Your task to perform on an android device: Turn on the flashlight Image 0: 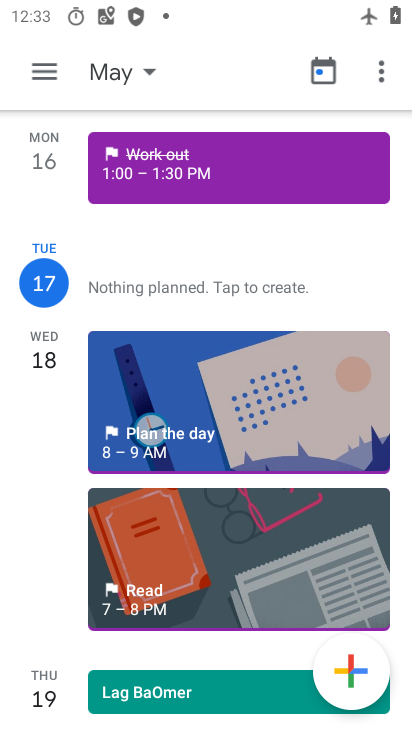
Step 0: drag from (280, 22) to (409, 668)
Your task to perform on an android device: Turn on the flashlight Image 1: 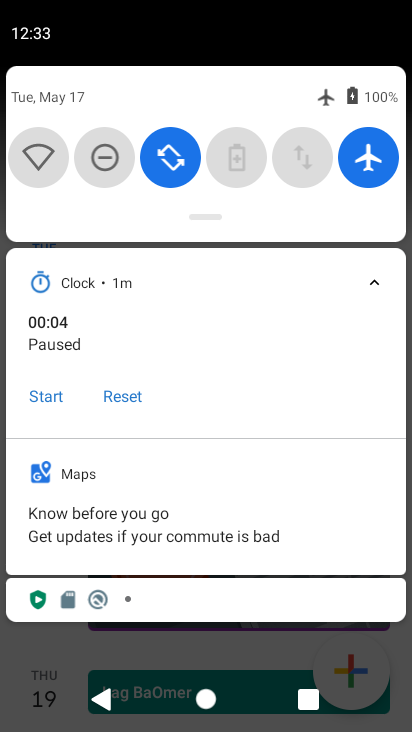
Step 1: task complete